Your task to perform on an android device: find which apps use the phone's location Image 0: 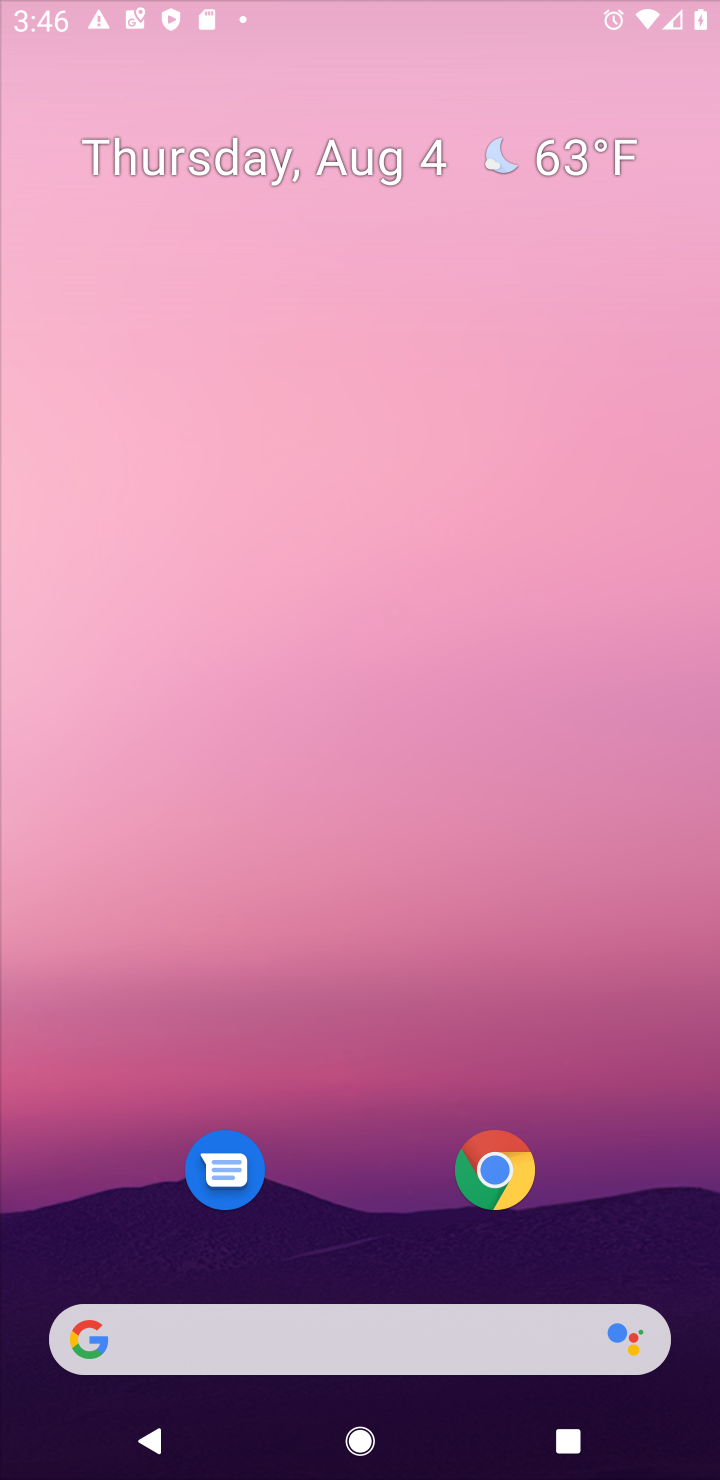
Step 0: press home button
Your task to perform on an android device: find which apps use the phone's location Image 1: 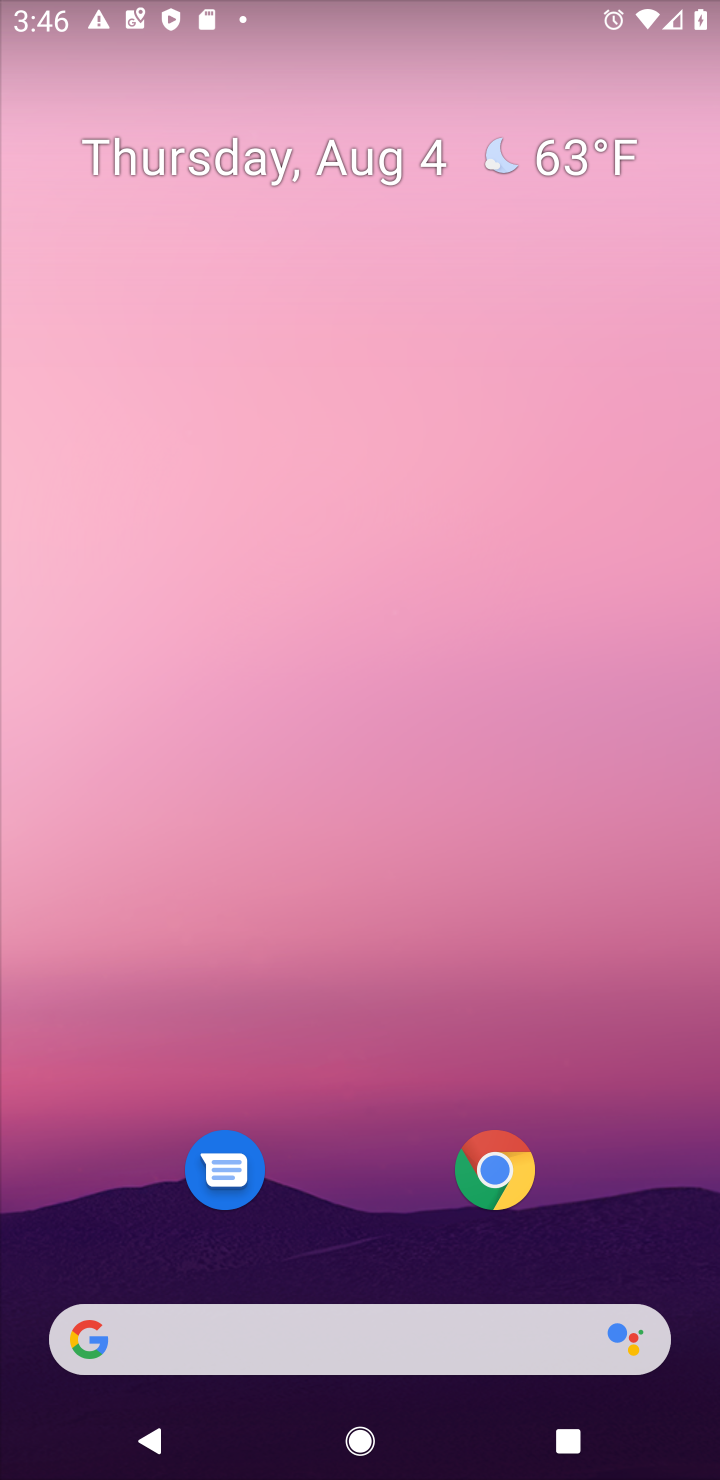
Step 1: drag from (647, 1221) to (558, 189)
Your task to perform on an android device: find which apps use the phone's location Image 2: 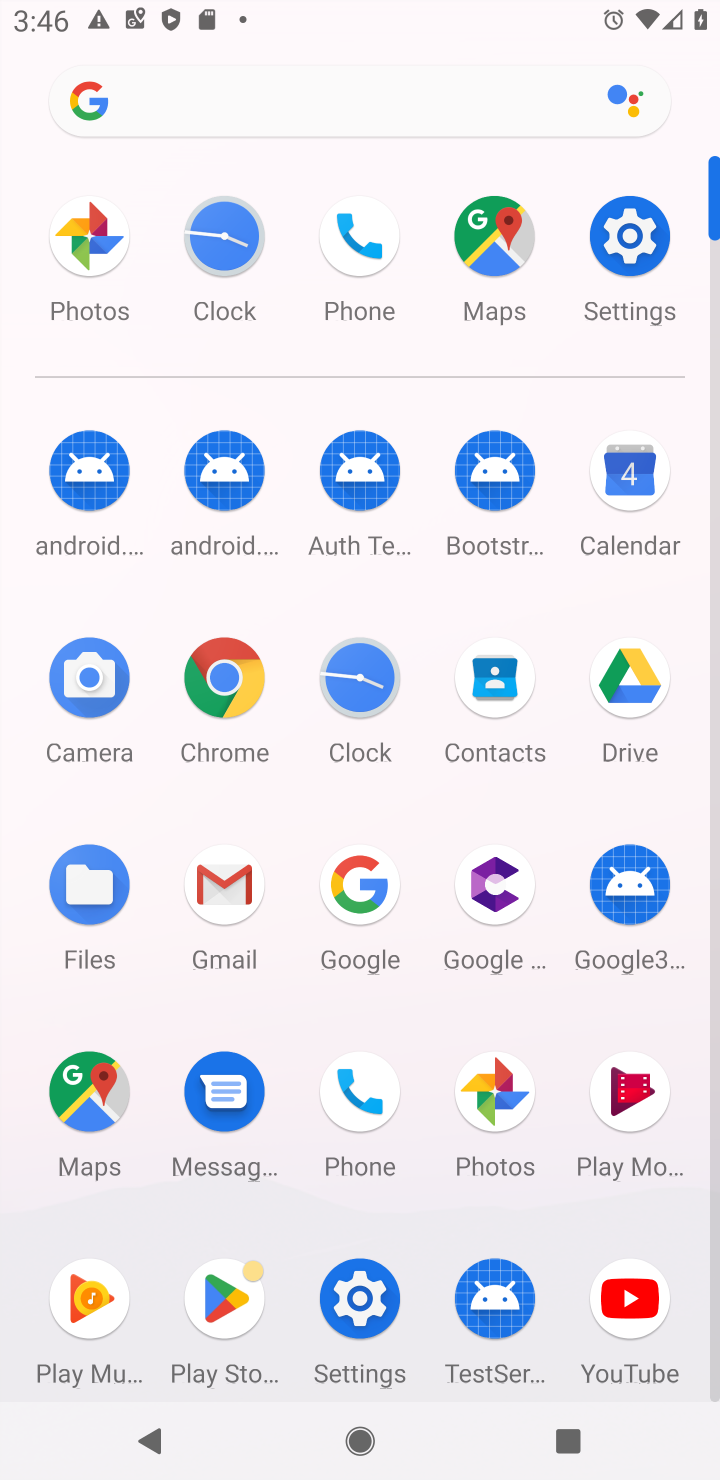
Step 2: click (632, 228)
Your task to perform on an android device: find which apps use the phone's location Image 3: 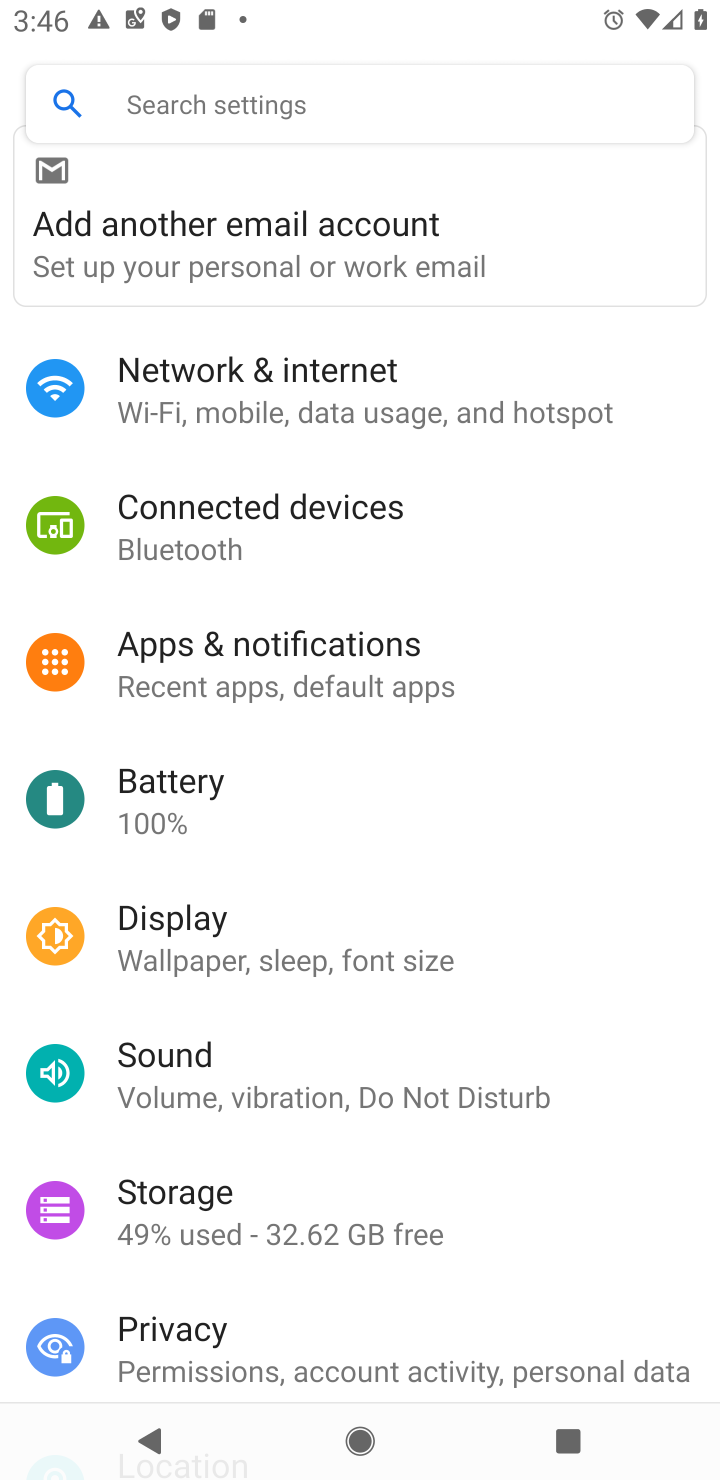
Step 3: drag from (585, 1279) to (593, 568)
Your task to perform on an android device: find which apps use the phone's location Image 4: 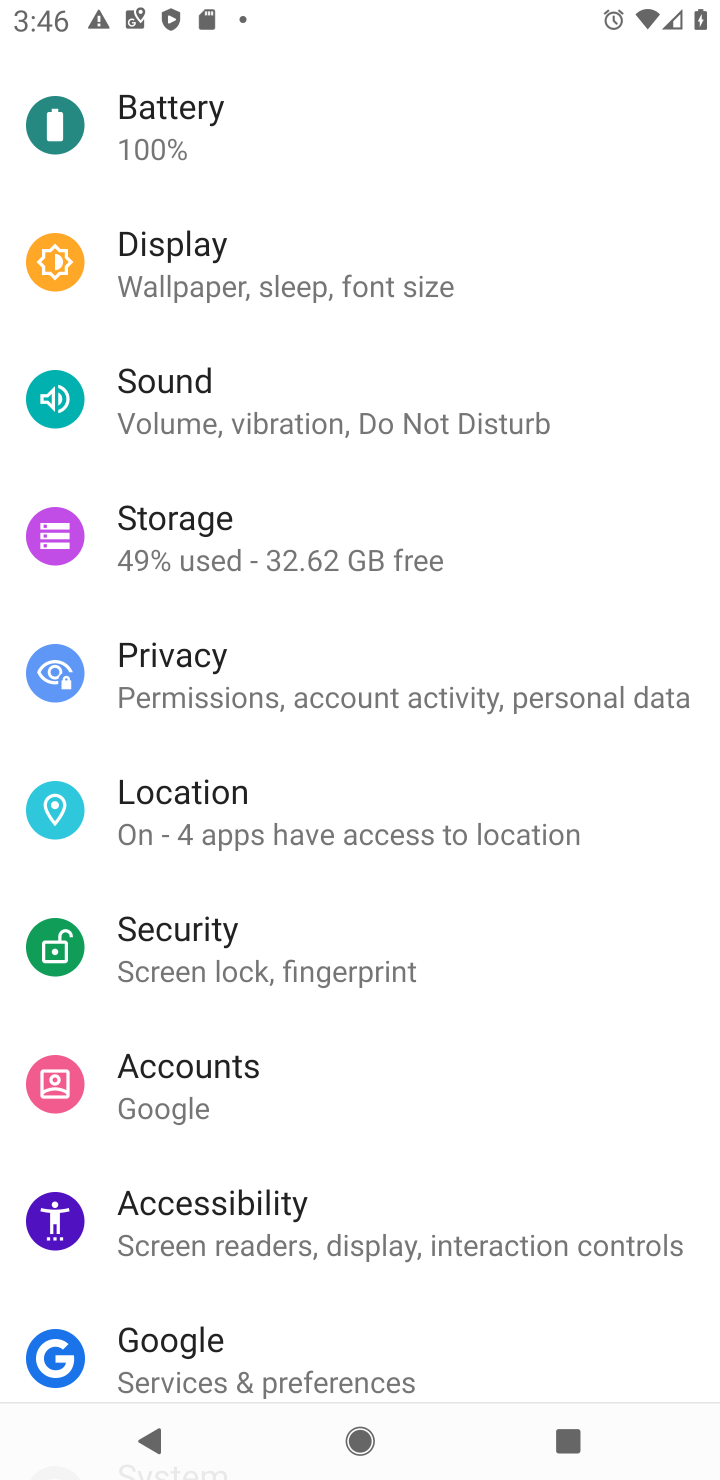
Step 4: click (160, 791)
Your task to perform on an android device: find which apps use the phone's location Image 5: 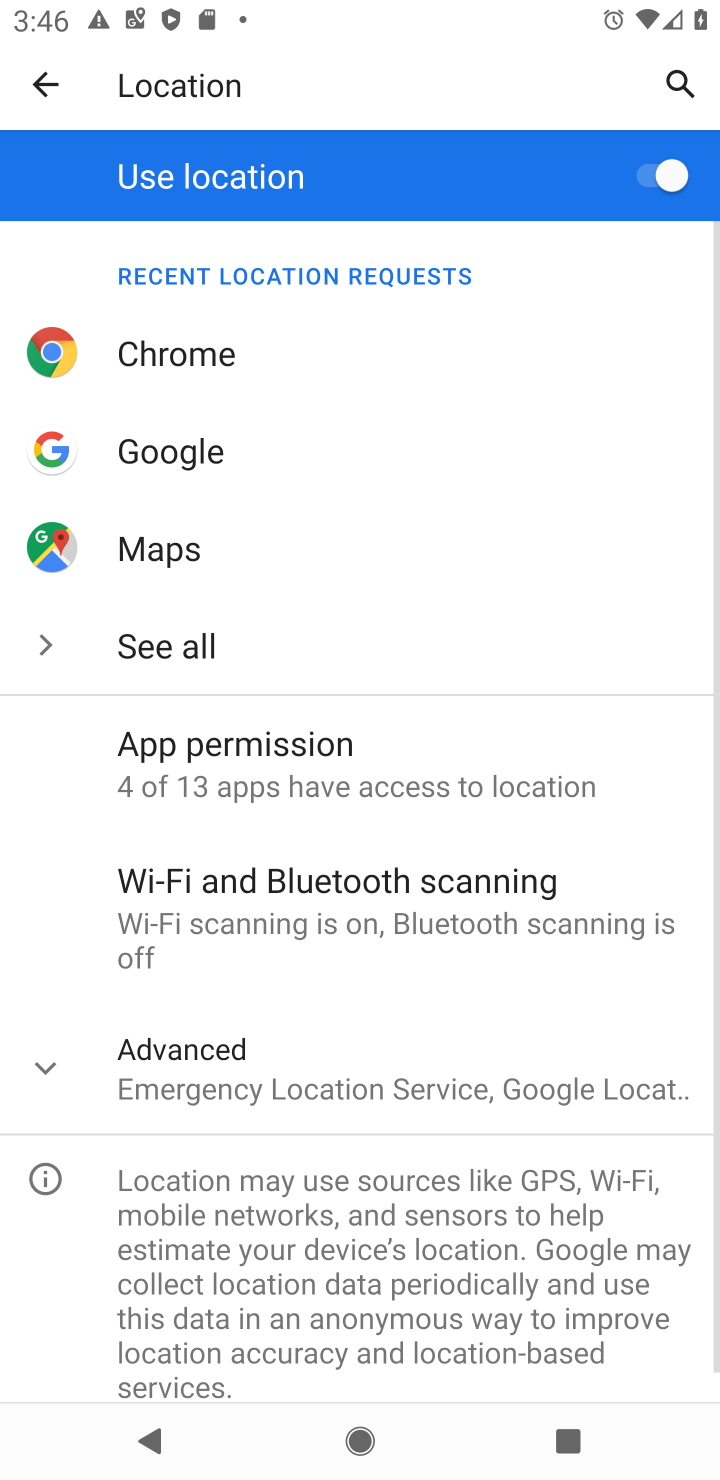
Step 5: click (211, 761)
Your task to perform on an android device: find which apps use the phone's location Image 6: 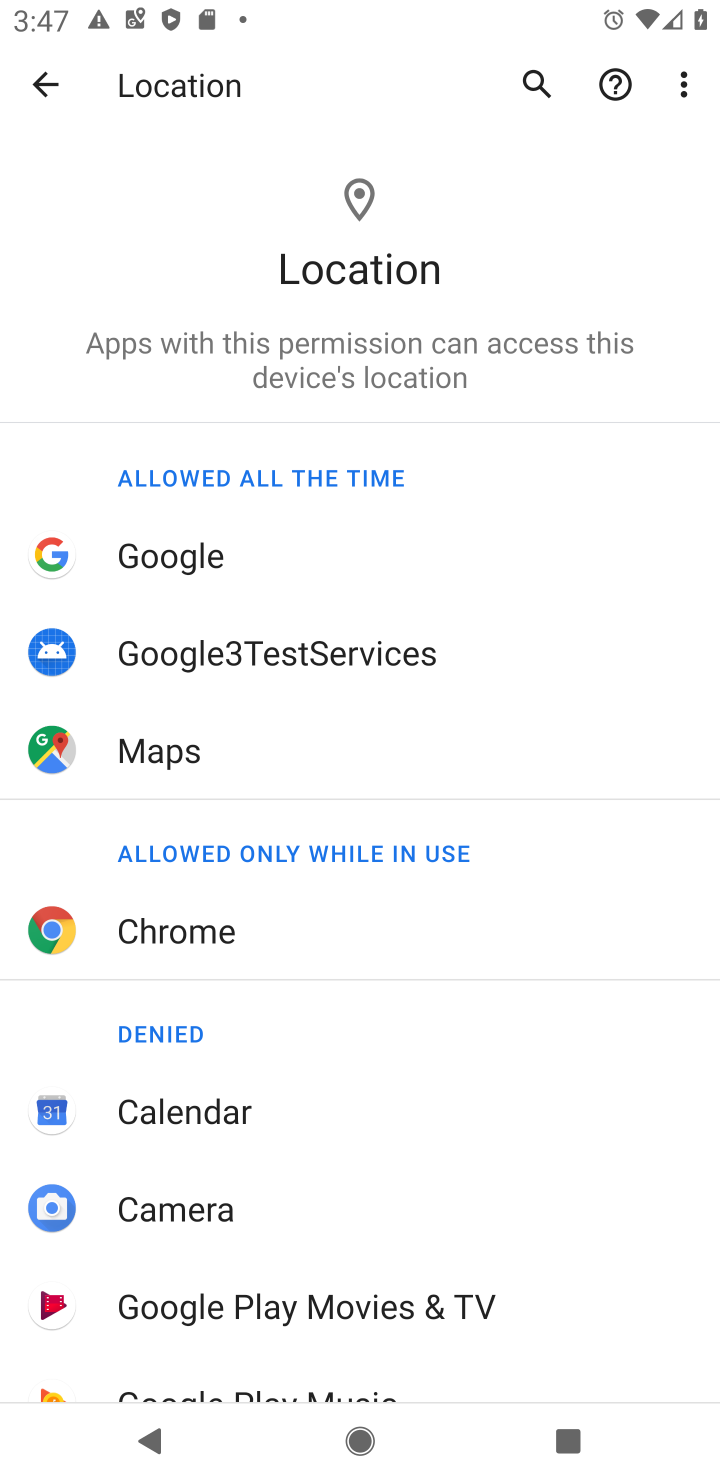
Step 6: task complete